Your task to perform on an android device: toggle airplane mode Image 0: 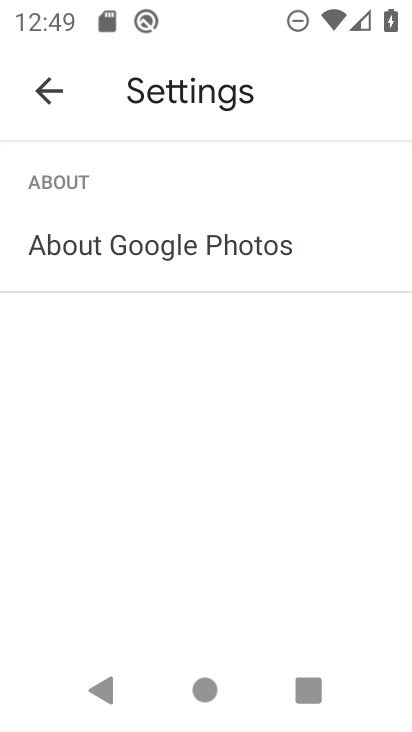
Step 0: press home button
Your task to perform on an android device: toggle airplane mode Image 1: 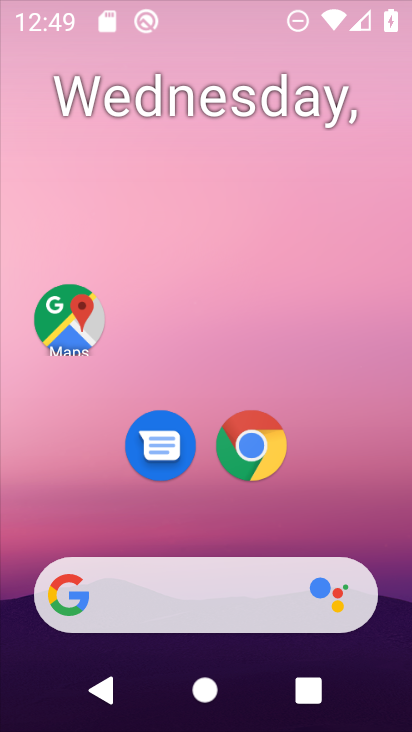
Step 1: drag from (382, 642) to (286, 66)
Your task to perform on an android device: toggle airplane mode Image 2: 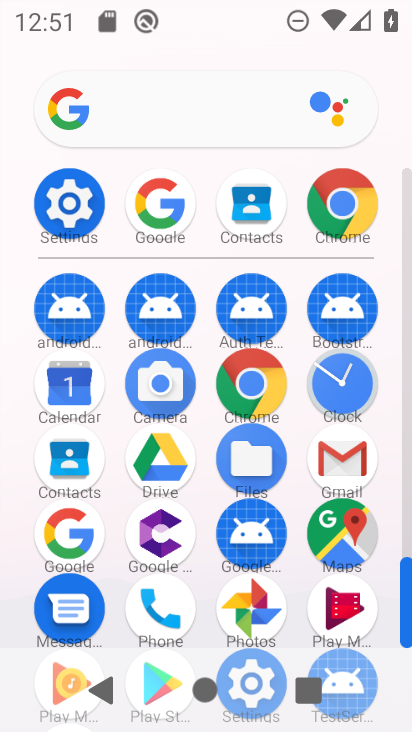
Step 2: drag from (234, 4) to (232, 469)
Your task to perform on an android device: toggle airplane mode Image 3: 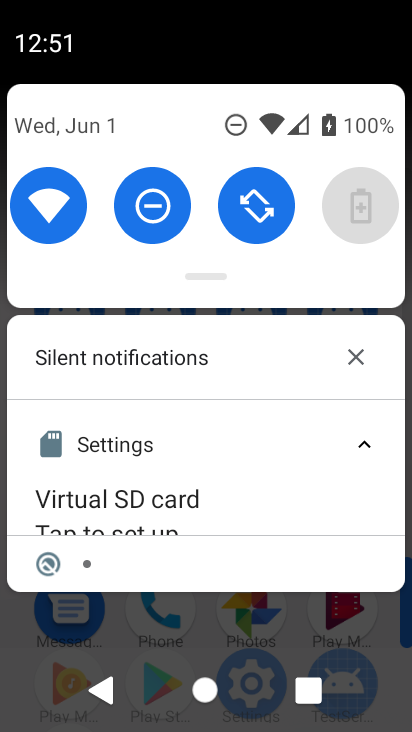
Step 3: drag from (356, 241) to (221, 581)
Your task to perform on an android device: toggle airplane mode Image 4: 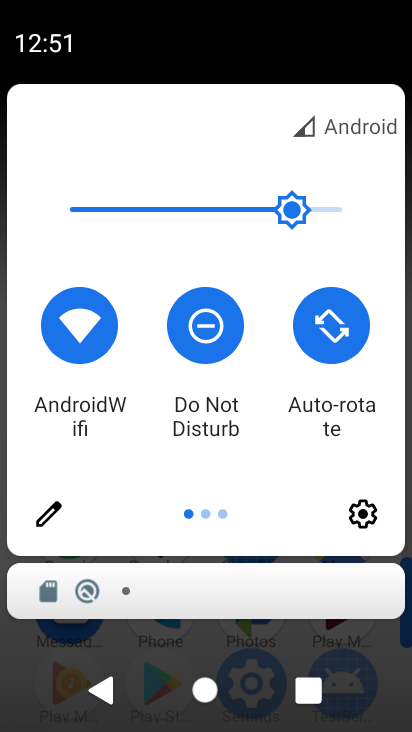
Step 4: drag from (352, 376) to (75, 414)
Your task to perform on an android device: toggle airplane mode Image 5: 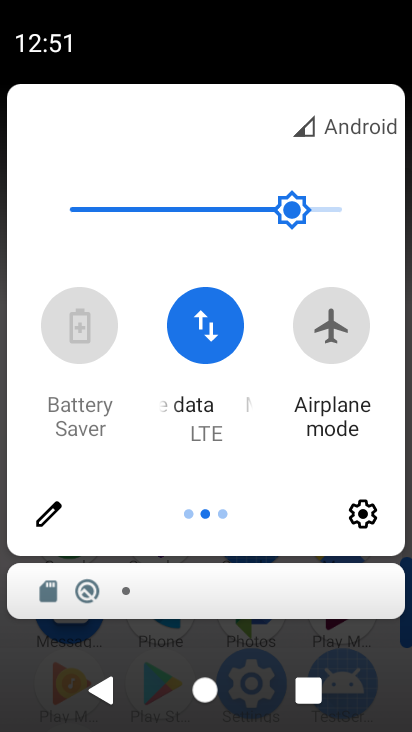
Step 5: click (324, 326)
Your task to perform on an android device: toggle airplane mode Image 6: 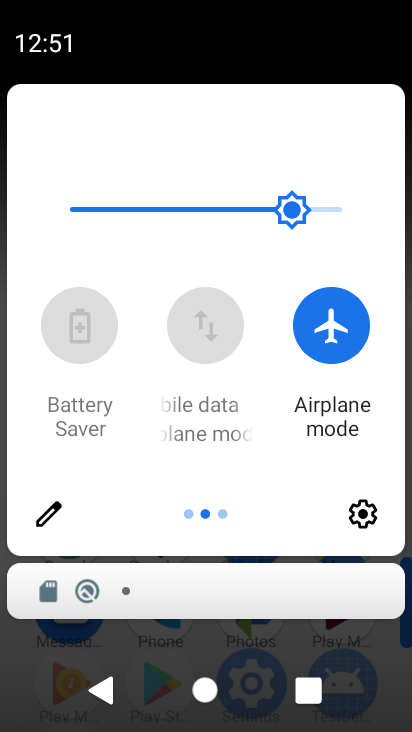
Step 6: task complete